Your task to perform on an android device: Add logitech g910 to the cart on bestbuy.com, then select checkout. Image 0: 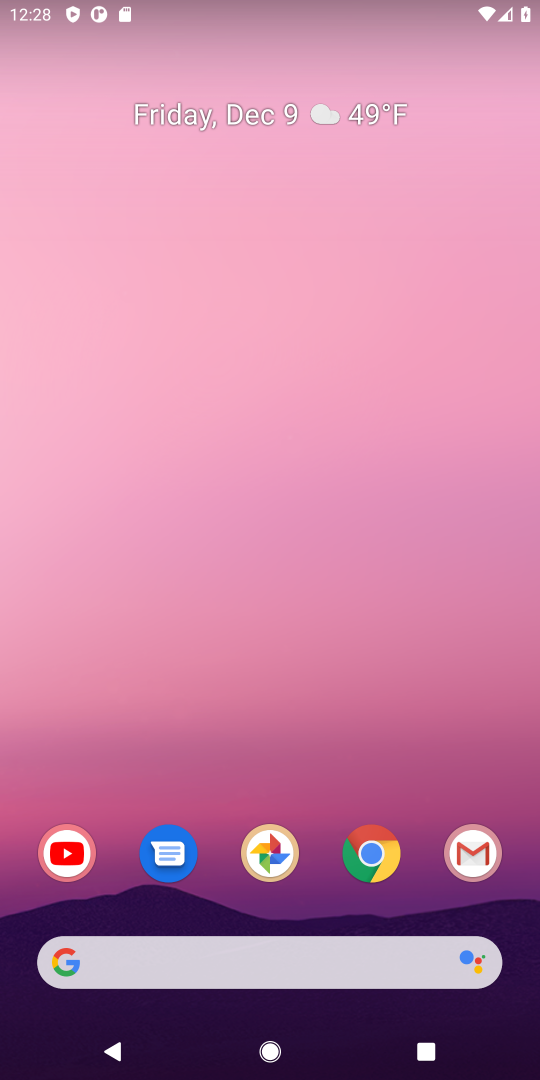
Step 0: drag from (201, 922) to (307, 490)
Your task to perform on an android device: Add logitech g910 to the cart on bestbuy.com, then select checkout. Image 1: 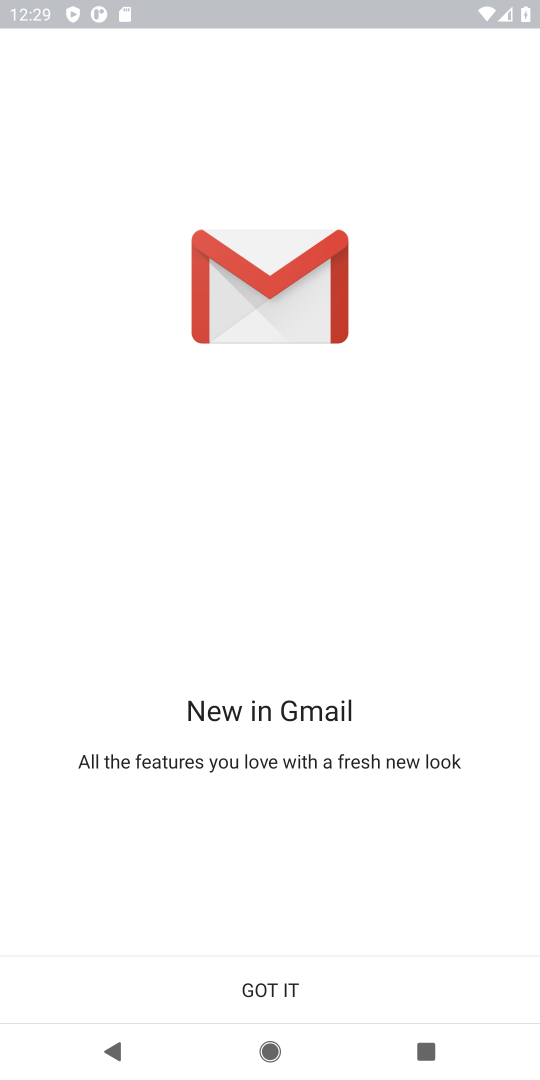
Step 1: press home button
Your task to perform on an android device: Add logitech g910 to the cart on bestbuy.com, then select checkout. Image 2: 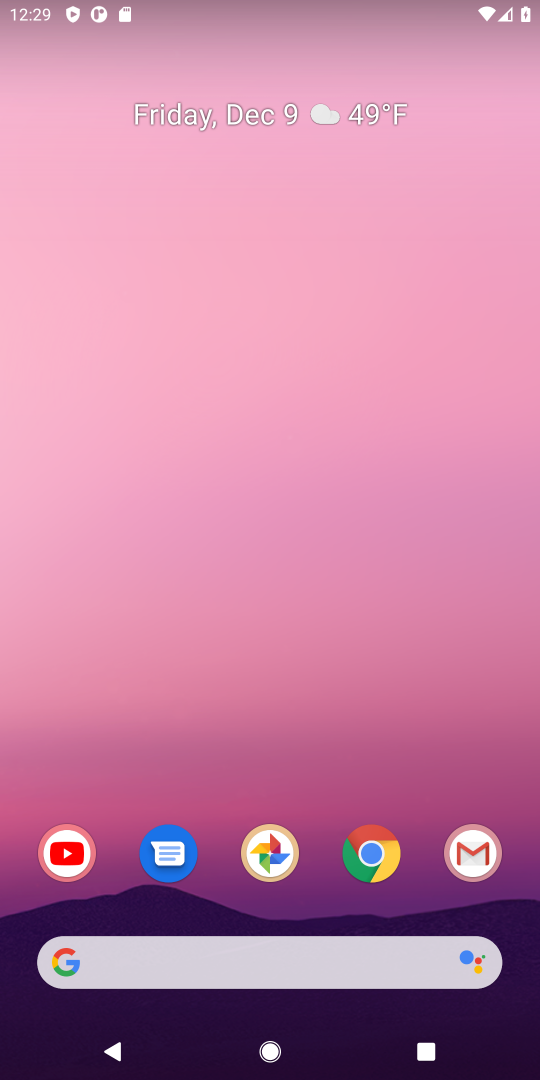
Step 2: drag from (199, 727) to (319, 279)
Your task to perform on an android device: Add logitech g910 to the cart on bestbuy.com, then select checkout. Image 3: 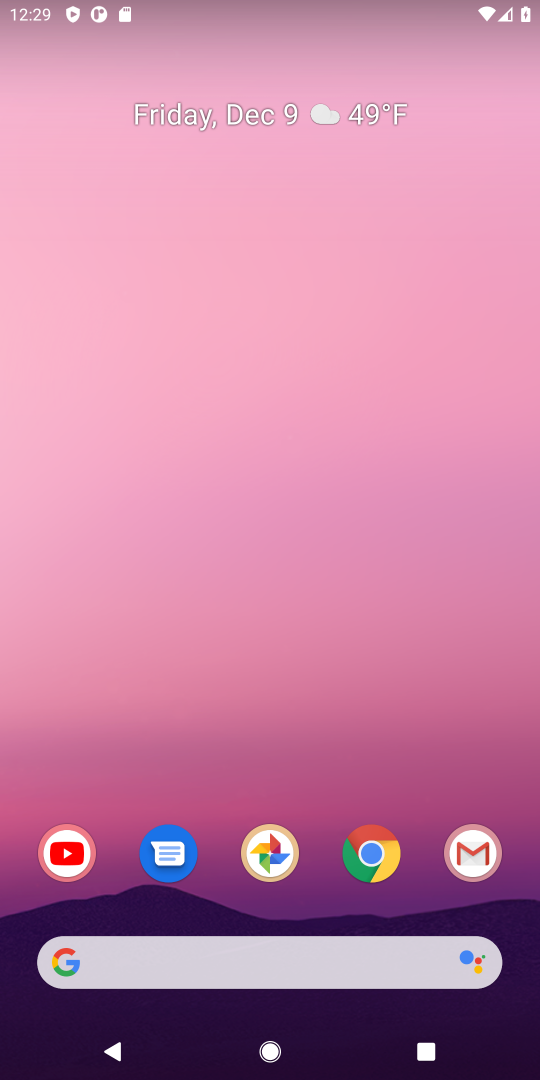
Step 3: drag from (330, 706) to (406, 244)
Your task to perform on an android device: Add logitech g910 to the cart on bestbuy.com, then select checkout. Image 4: 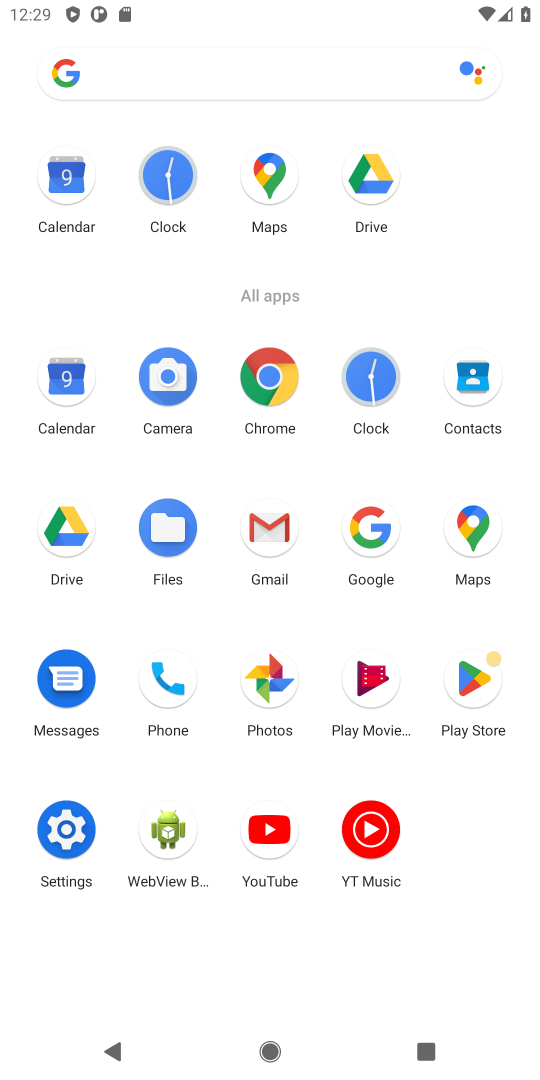
Step 4: click (379, 527)
Your task to perform on an android device: Add logitech g910 to the cart on bestbuy.com, then select checkout. Image 5: 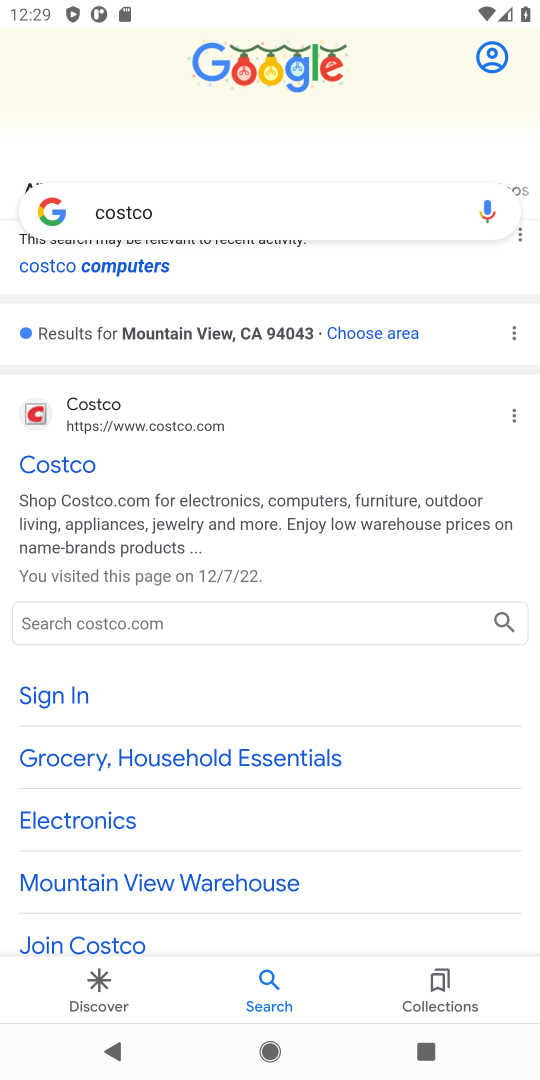
Step 5: click (171, 217)
Your task to perform on an android device: Add logitech g910 to the cart on bestbuy.com, then select checkout. Image 6: 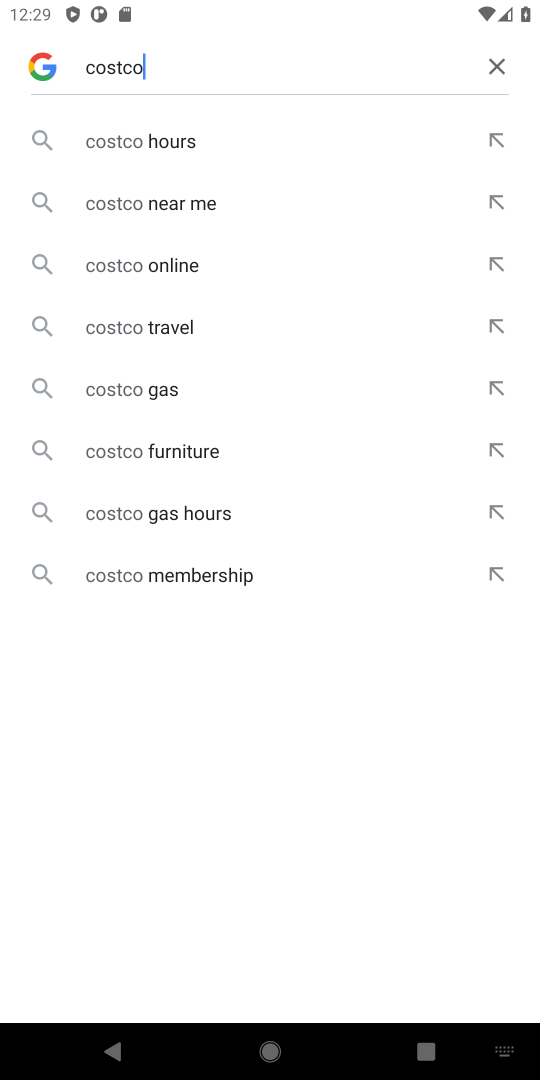
Step 6: click (500, 69)
Your task to perform on an android device: Add logitech g910 to the cart on bestbuy.com, then select checkout. Image 7: 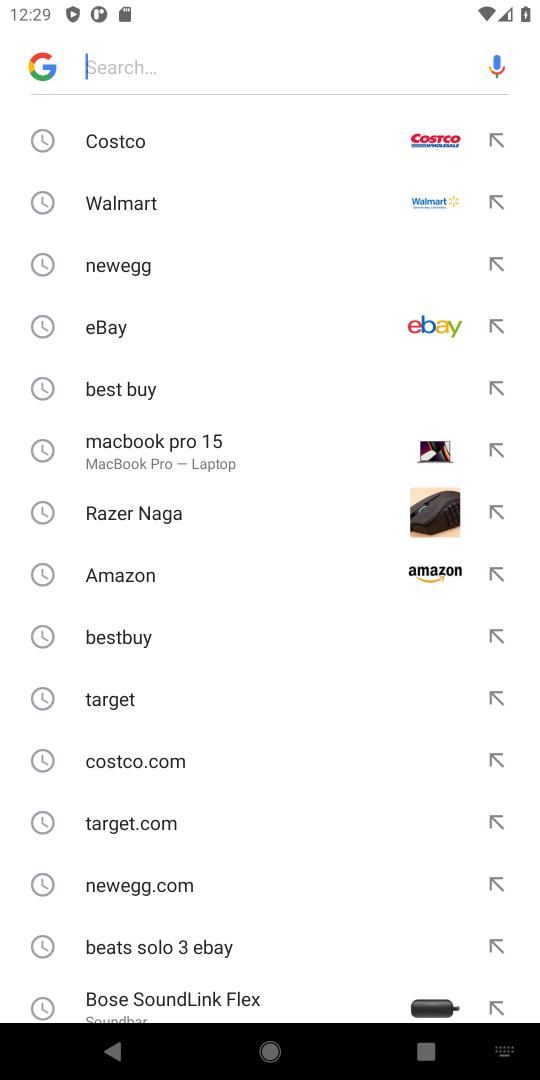
Step 7: click (104, 391)
Your task to perform on an android device: Add logitech g910 to the cart on bestbuy.com, then select checkout. Image 8: 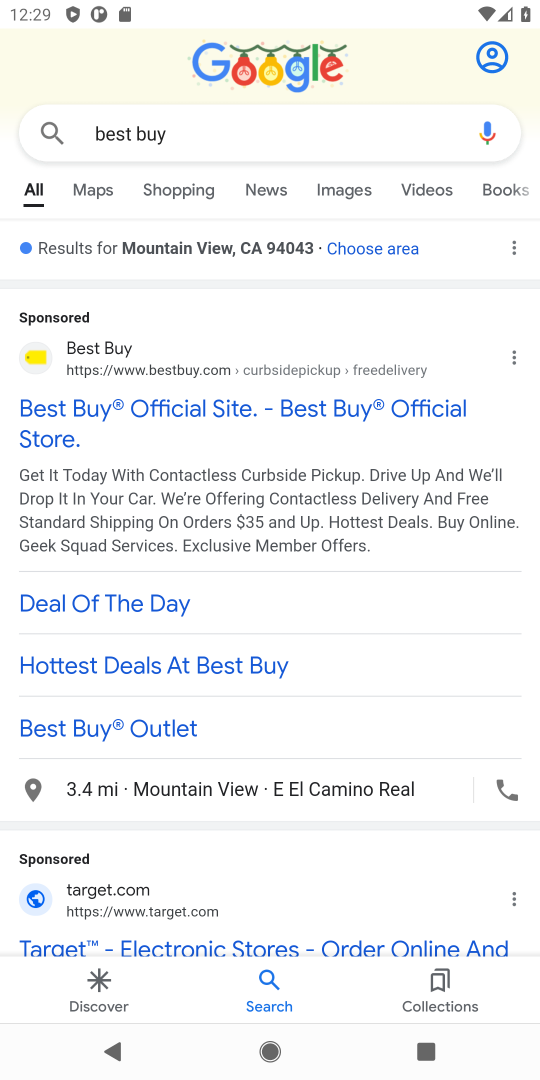
Step 8: click (125, 420)
Your task to perform on an android device: Add logitech g910 to the cart on bestbuy.com, then select checkout. Image 9: 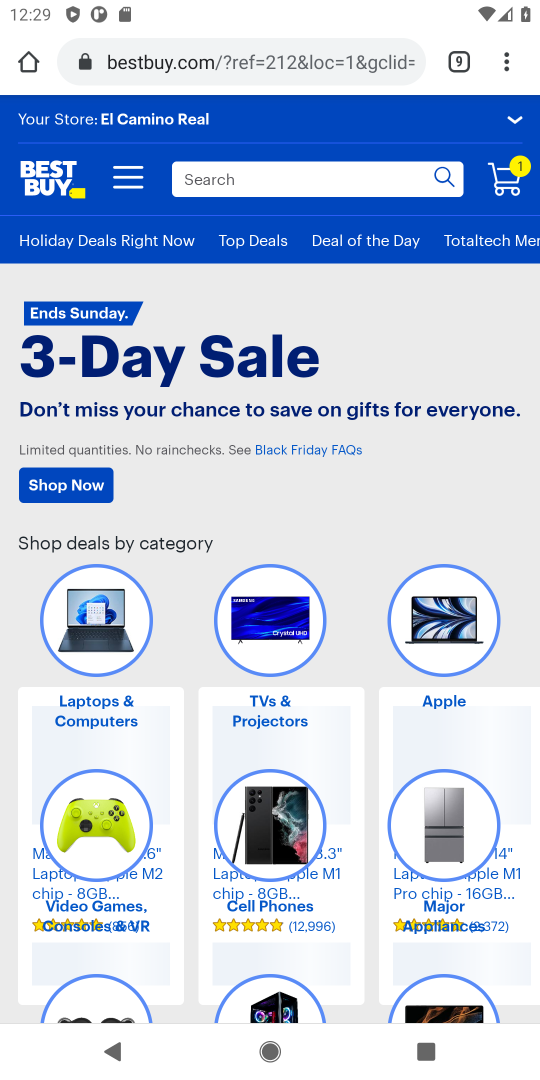
Step 9: click (326, 184)
Your task to perform on an android device: Add logitech g910 to the cart on bestbuy.com, then select checkout. Image 10: 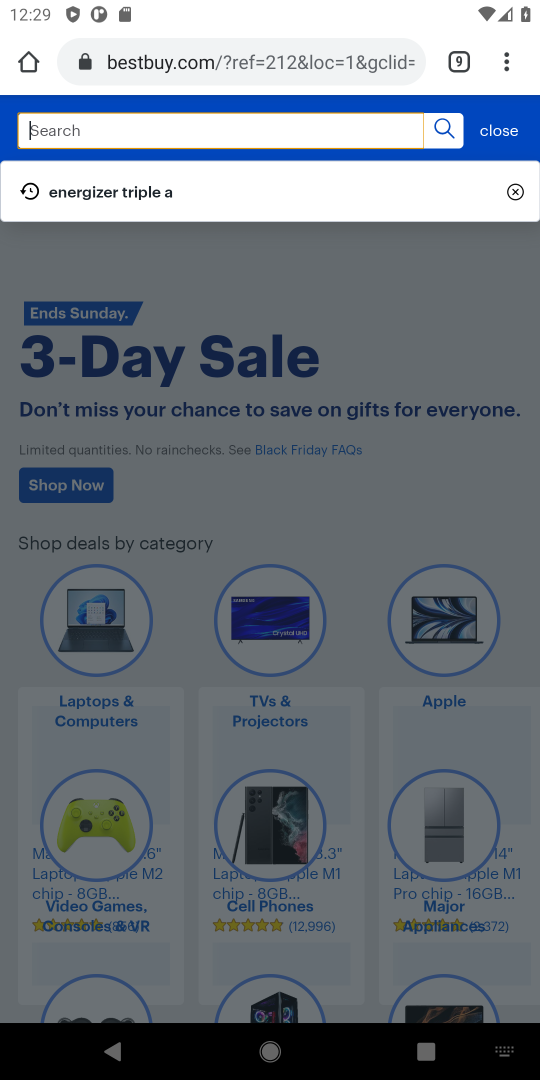
Step 10: type "logitech g910"
Your task to perform on an android device: Add logitech g910 to the cart on bestbuy.com, then select checkout. Image 11: 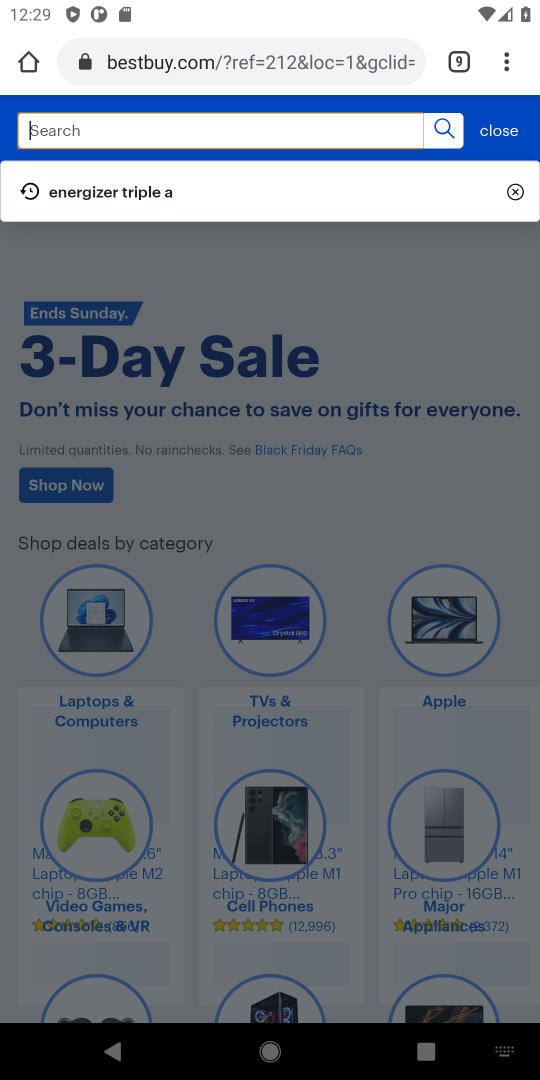
Step 11: click (444, 128)
Your task to perform on an android device: Add logitech g910 to the cart on bestbuy.com, then select checkout. Image 12: 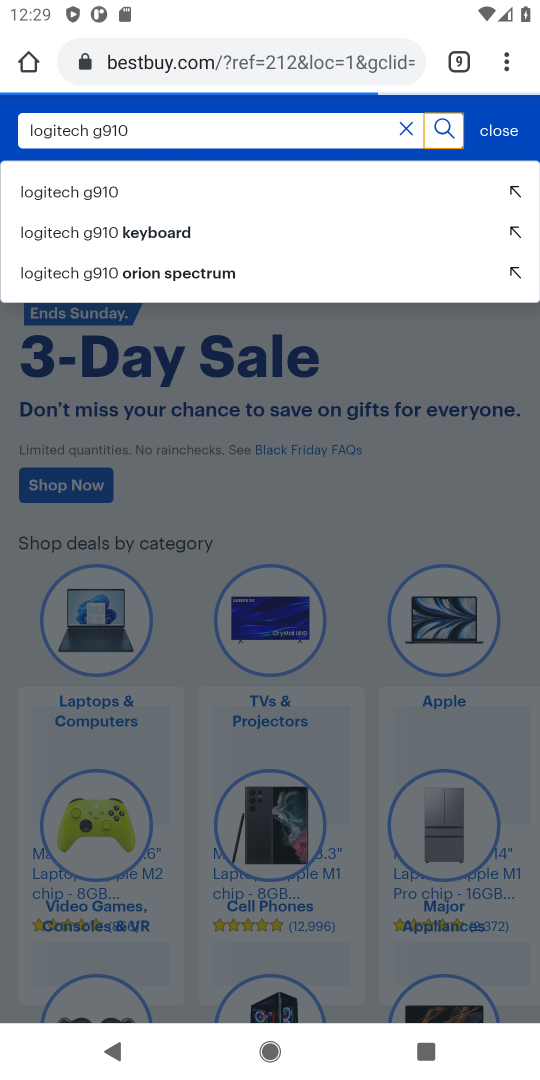
Step 12: click (115, 202)
Your task to perform on an android device: Add logitech g910 to the cart on bestbuy.com, then select checkout. Image 13: 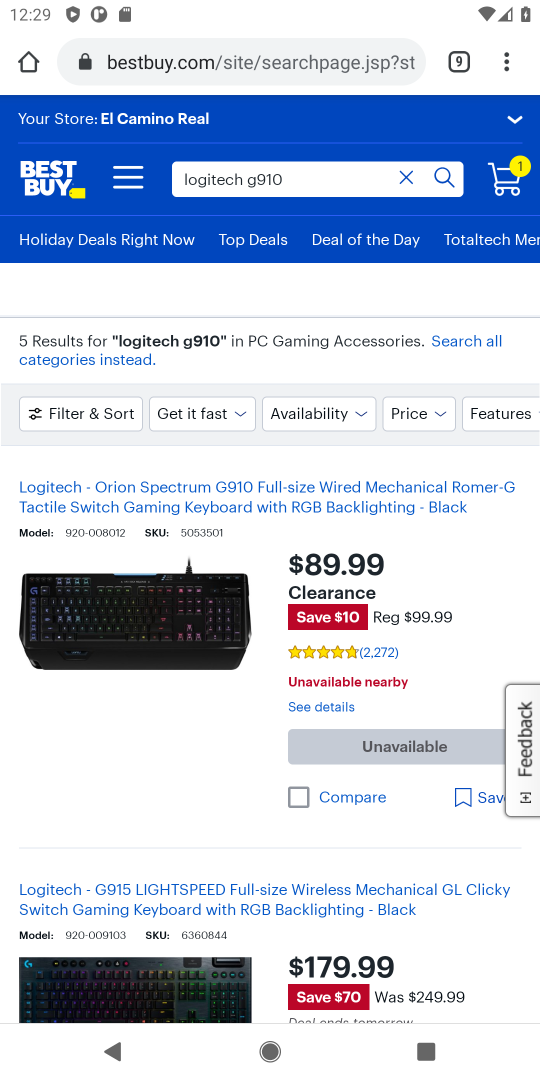
Step 13: click (137, 607)
Your task to perform on an android device: Add logitech g910 to the cart on bestbuy.com, then select checkout. Image 14: 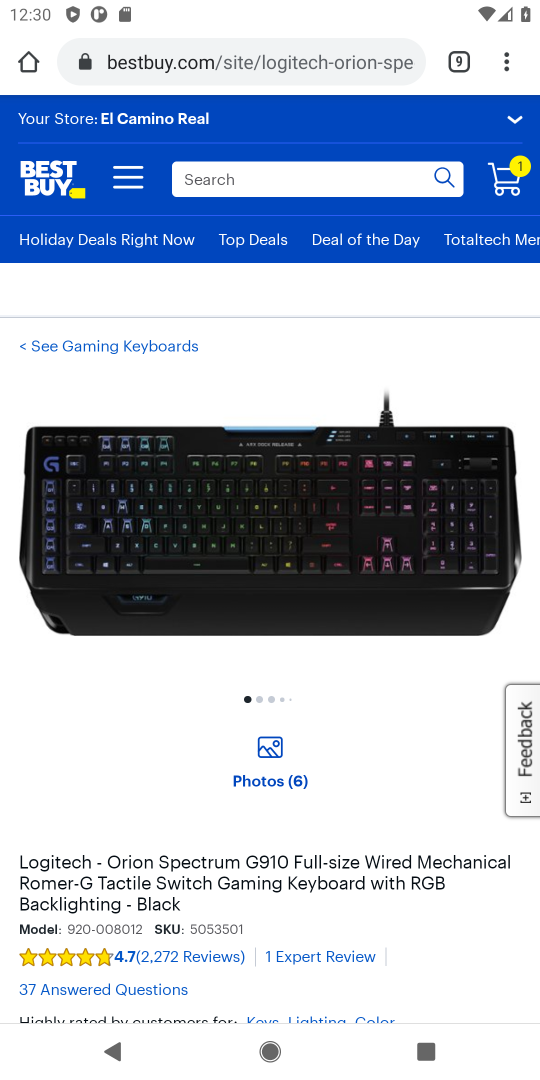
Step 14: press back button
Your task to perform on an android device: Add logitech g910 to the cart on bestbuy.com, then select checkout. Image 15: 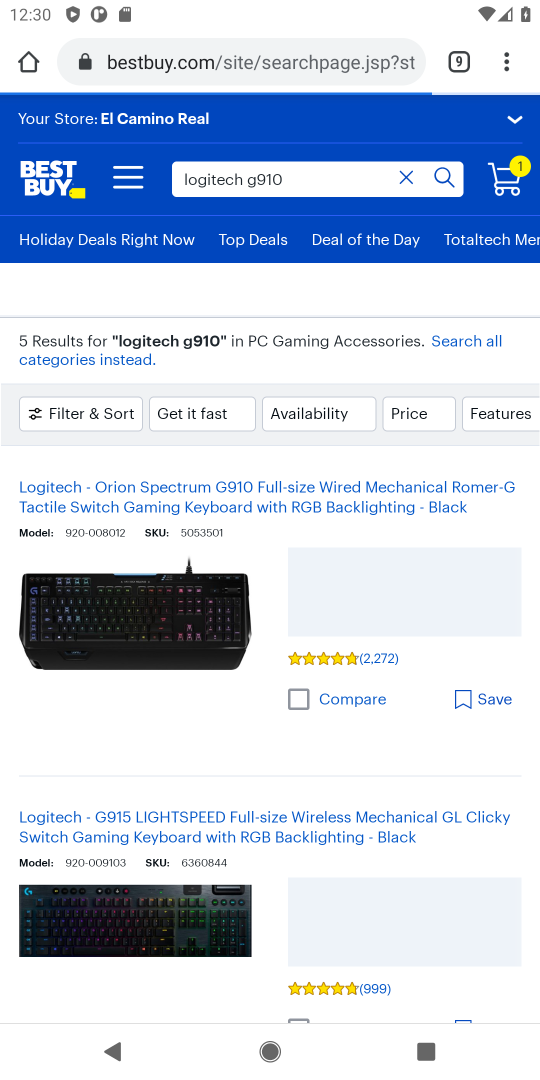
Step 15: drag from (261, 653) to (289, 471)
Your task to perform on an android device: Add logitech g910 to the cart on bestbuy.com, then select checkout. Image 16: 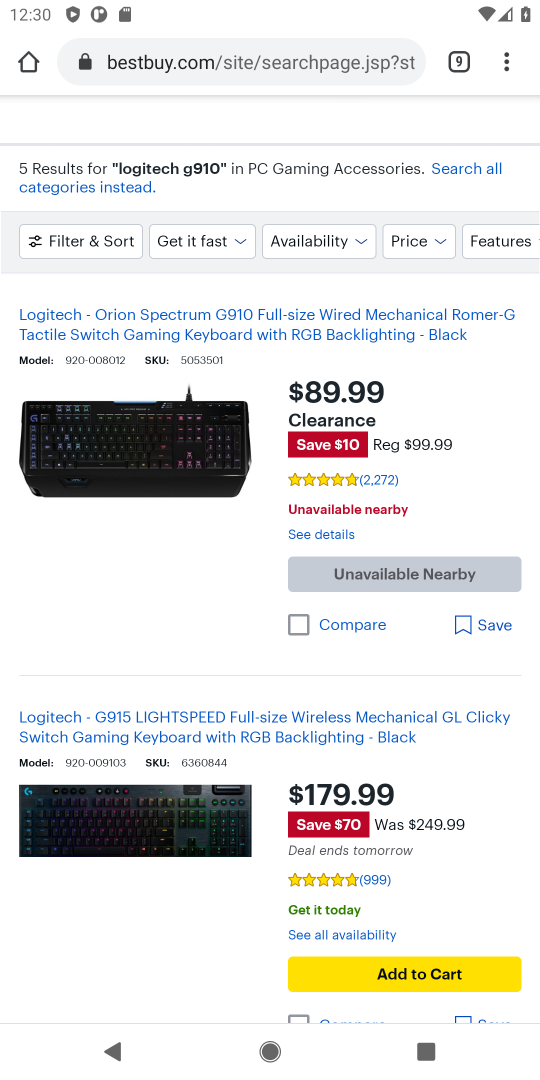
Step 16: click (407, 977)
Your task to perform on an android device: Add logitech g910 to the cart on bestbuy.com, then select checkout. Image 17: 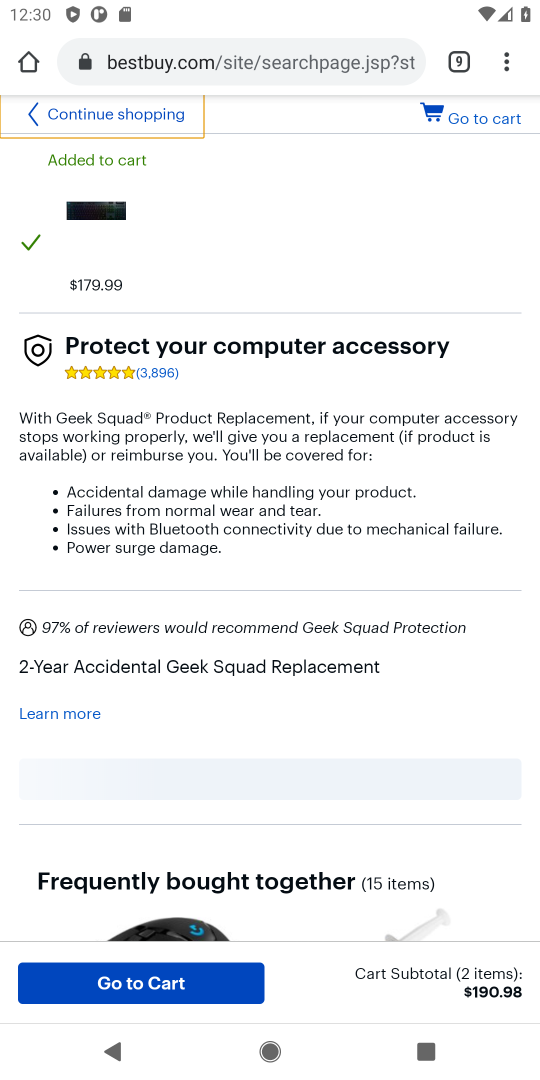
Step 17: click (190, 981)
Your task to perform on an android device: Add logitech g910 to the cart on bestbuy.com, then select checkout. Image 18: 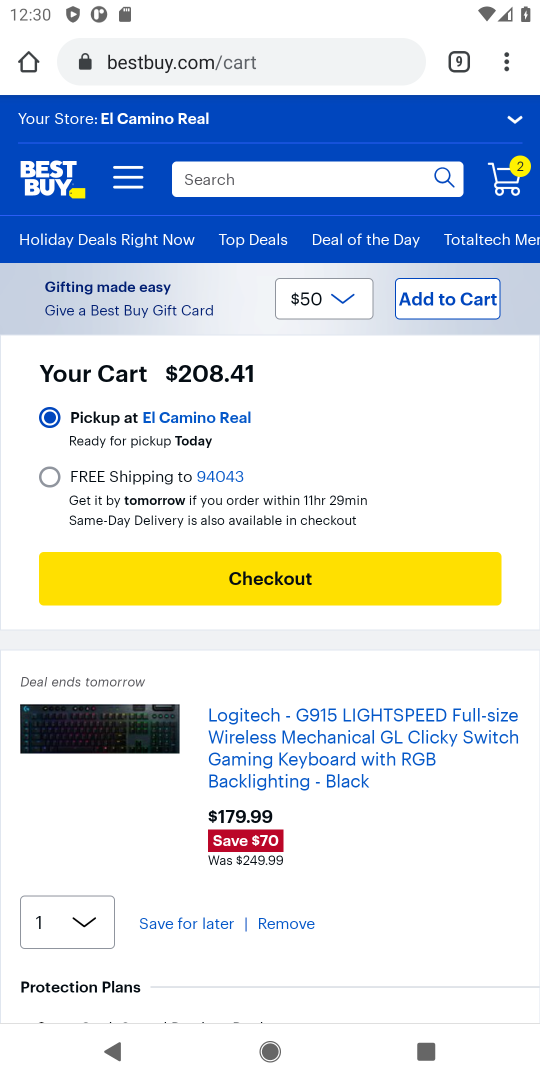
Step 18: click (231, 576)
Your task to perform on an android device: Add logitech g910 to the cart on bestbuy.com, then select checkout. Image 19: 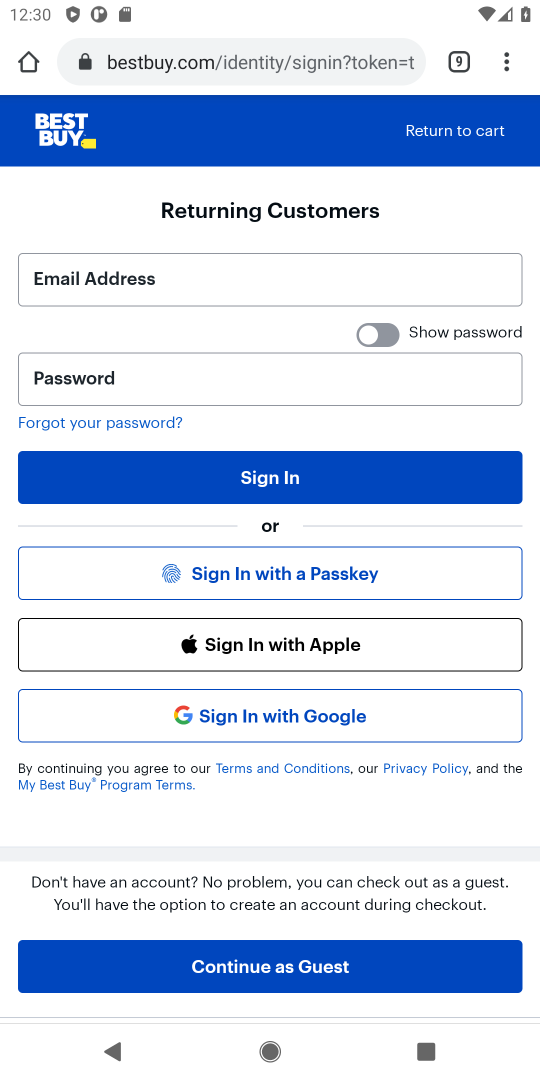
Step 19: task complete